Your task to perform on an android device: create a new album in the google photos Image 0: 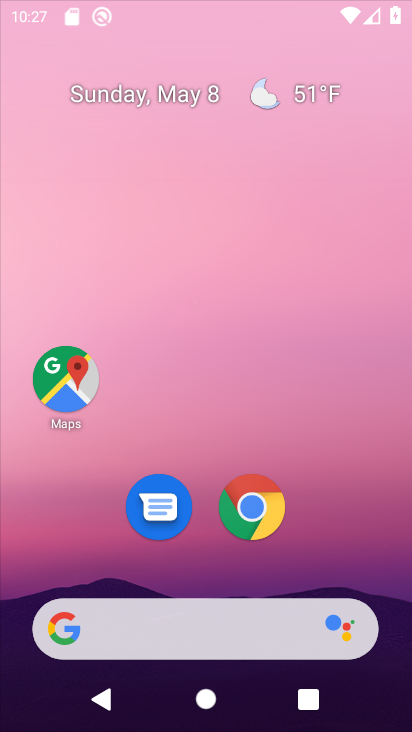
Step 0: press home button
Your task to perform on an android device: create a new album in the google photos Image 1: 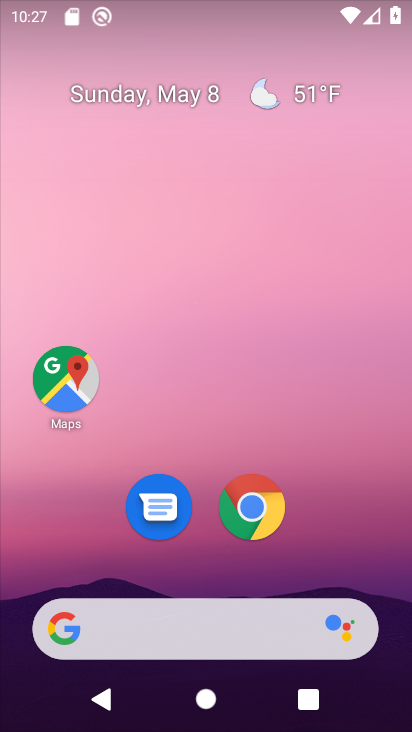
Step 1: drag from (204, 558) to (222, 47)
Your task to perform on an android device: create a new album in the google photos Image 2: 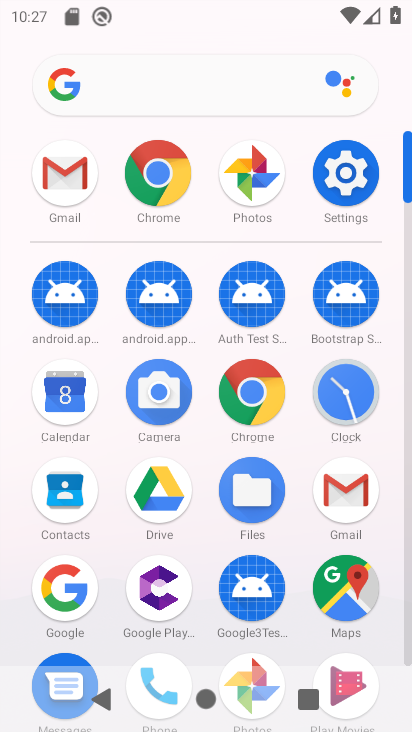
Step 2: drag from (198, 550) to (201, 117)
Your task to perform on an android device: create a new album in the google photos Image 3: 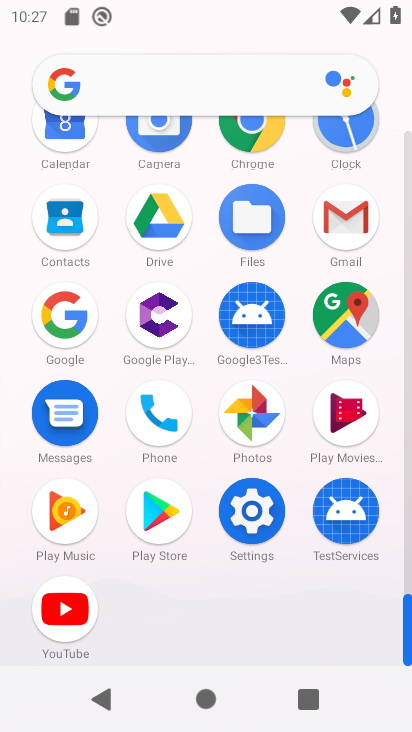
Step 3: click (260, 409)
Your task to perform on an android device: create a new album in the google photos Image 4: 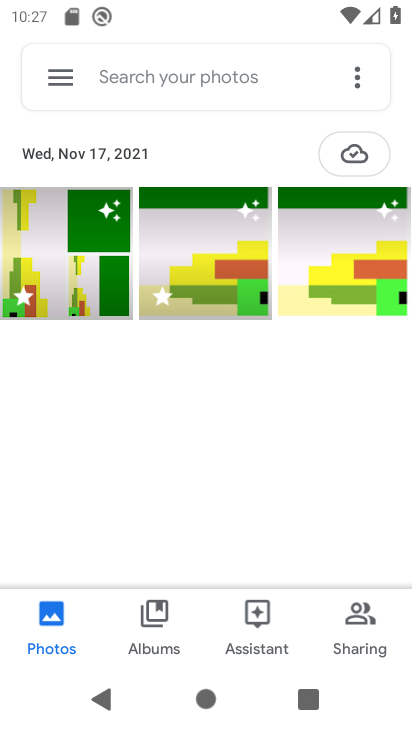
Step 4: click (155, 613)
Your task to perform on an android device: create a new album in the google photos Image 5: 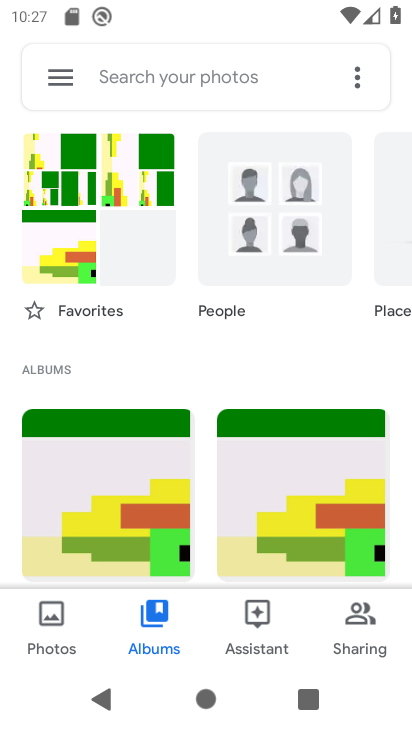
Step 5: click (355, 75)
Your task to perform on an android device: create a new album in the google photos Image 6: 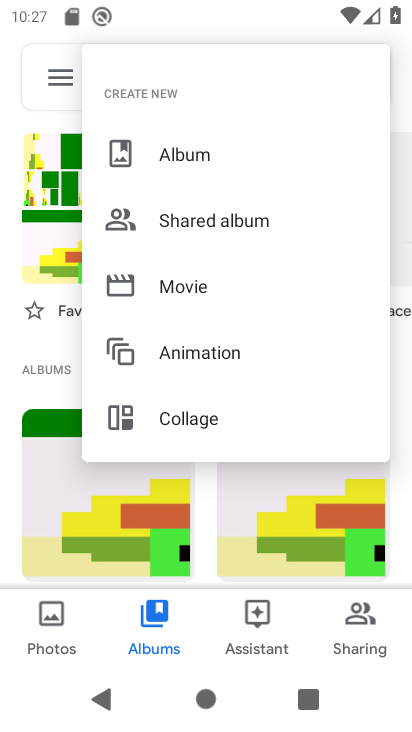
Step 6: click (179, 147)
Your task to perform on an android device: create a new album in the google photos Image 7: 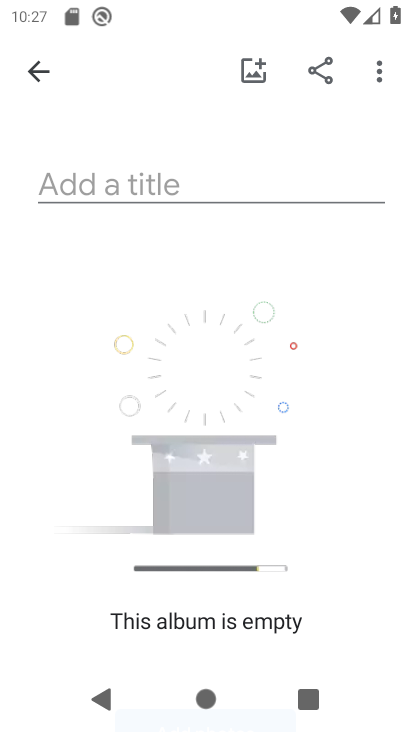
Step 7: drag from (227, 542) to (258, 231)
Your task to perform on an android device: create a new album in the google photos Image 8: 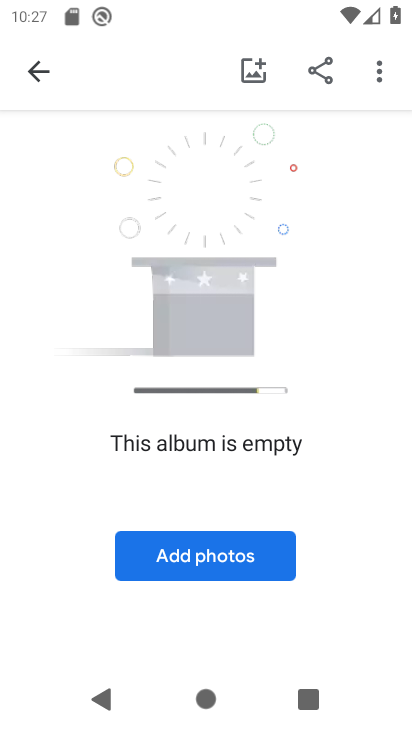
Step 8: click (201, 570)
Your task to perform on an android device: create a new album in the google photos Image 9: 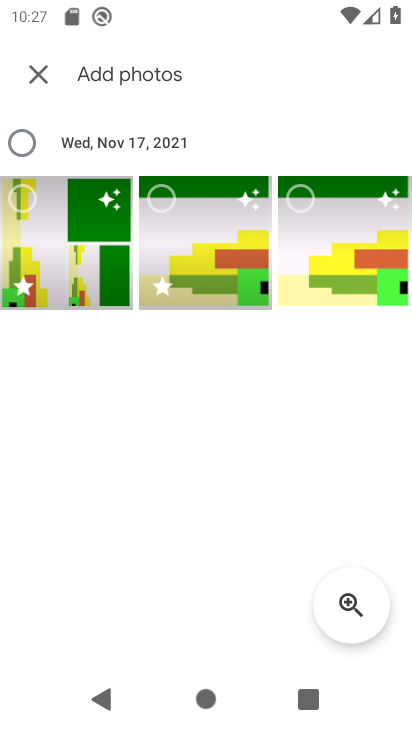
Step 9: click (19, 132)
Your task to perform on an android device: create a new album in the google photos Image 10: 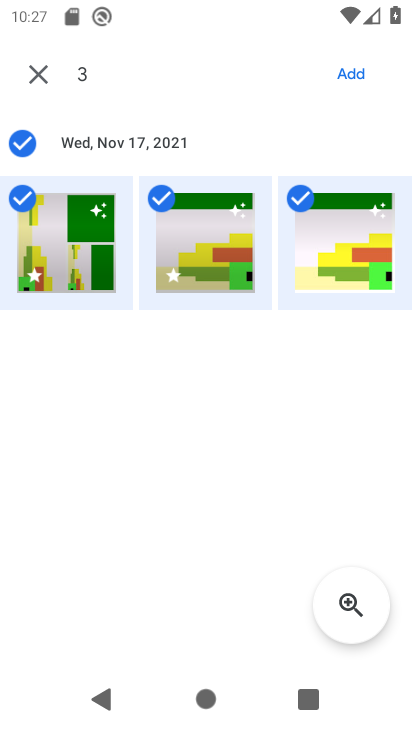
Step 10: click (342, 68)
Your task to perform on an android device: create a new album in the google photos Image 11: 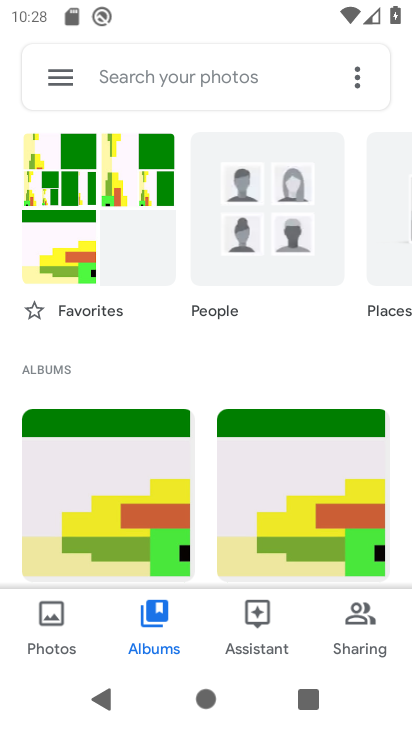
Step 11: click (358, 78)
Your task to perform on an android device: create a new album in the google photos Image 12: 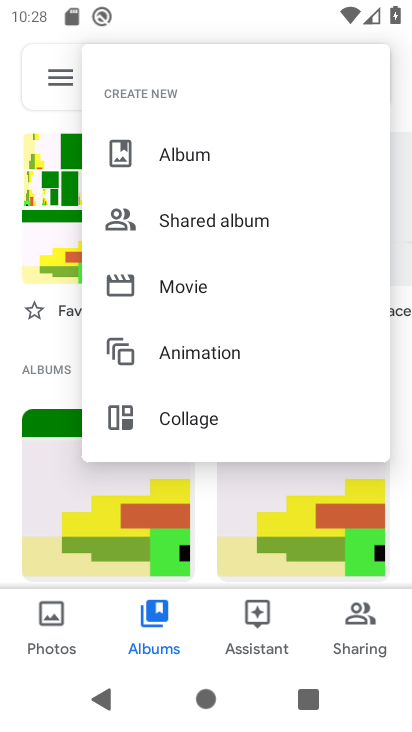
Step 12: click (209, 161)
Your task to perform on an android device: create a new album in the google photos Image 13: 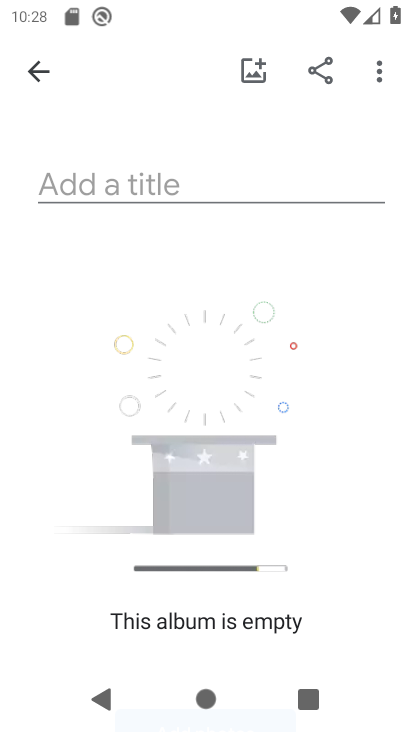
Step 13: drag from (202, 520) to (224, 208)
Your task to perform on an android device: create a new album in the google photos Image 14: 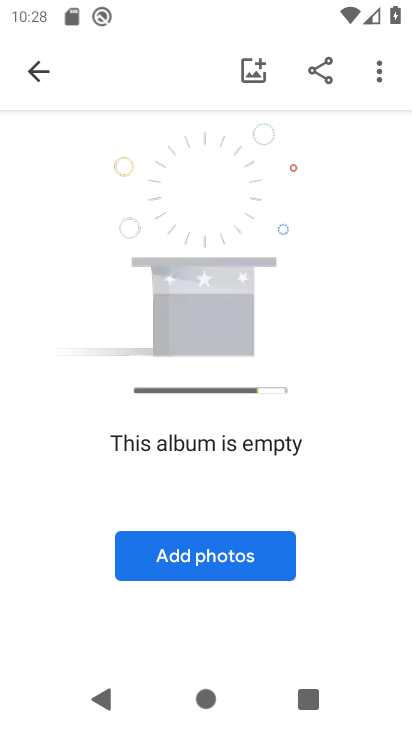
Step 14: click (217, 559)
Your task to perform on an android device: create a new album in the google photos Image 15: 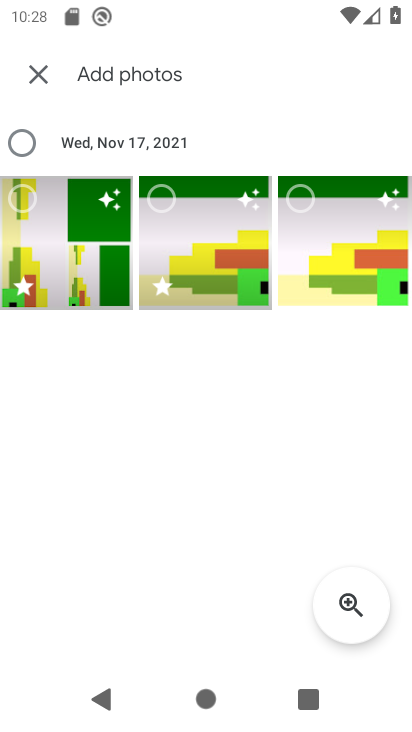
Step 15: click (29, 142)
Your task to perform on an android device: create a new album in the google photos Image 16: 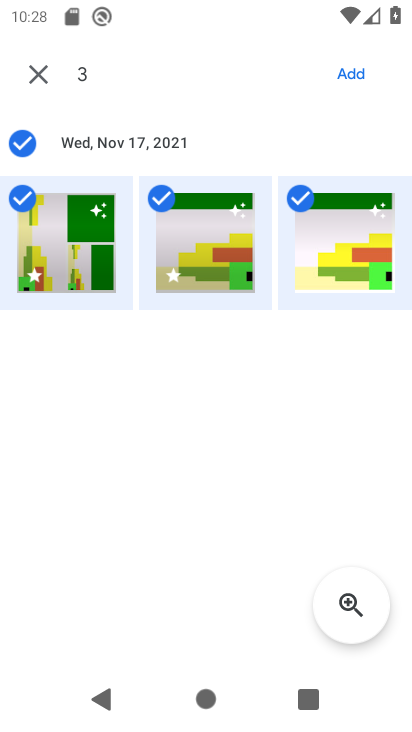
Step 16: click (371, 65)
Your task to perform on an android device: create a new album in the google photos Image 17: 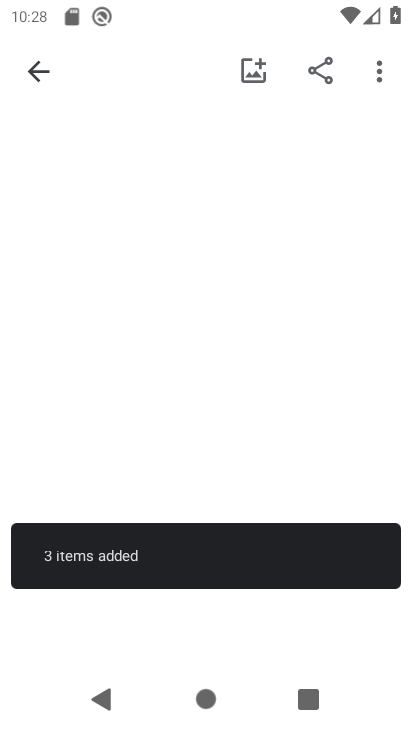
Step 17: drag from (166, 211) to (160, 582)
Your task to perform on an android device: create a new album in the google photos Image 18: 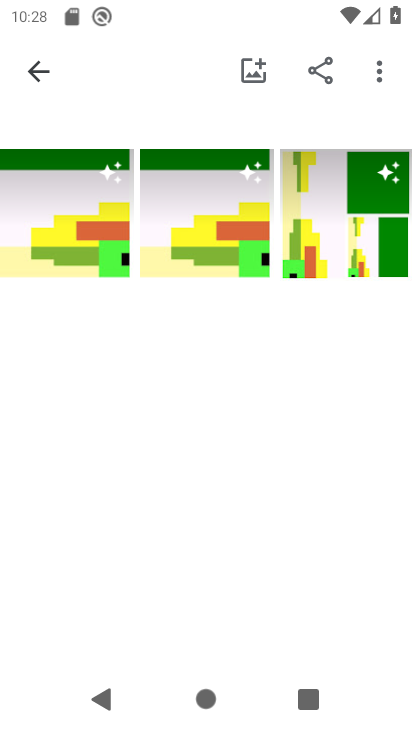
Step 18: drag from (171, 245) to (147, 717)
Your task to perform on an android device: create a new album in the google photos Image 19: 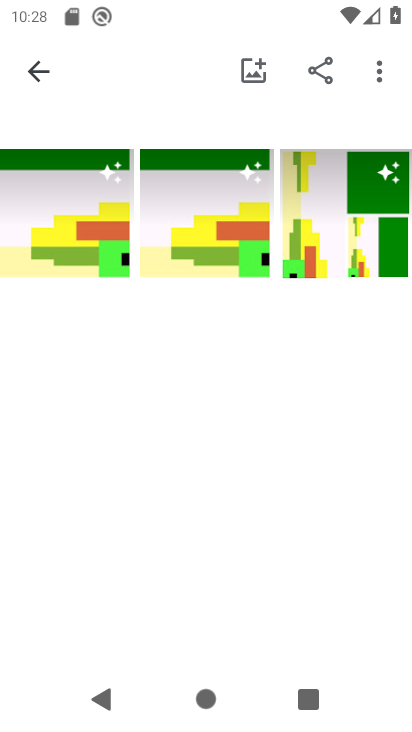
Step 19: drag from (166, 333) to (151, 597)
Your task to perform on an android device: create a new album in the google photos Image 20: 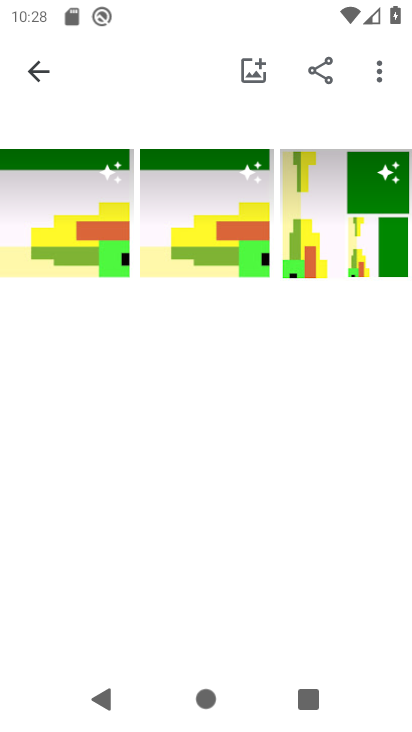
Step 20: drag from (129, 557) to (179, 185)
Your task to perform on an android device: create a new album in the google photos Image 21: 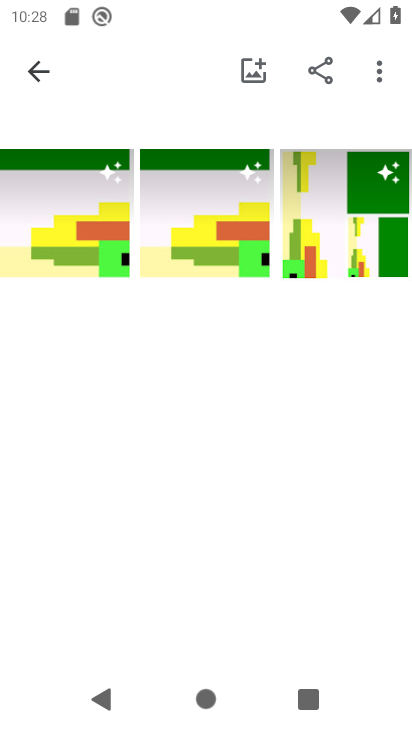
Step 21: drag from (237, 301) to (229, 544)
Your task to perform on an android device: create a new album in the google photos Image 22: 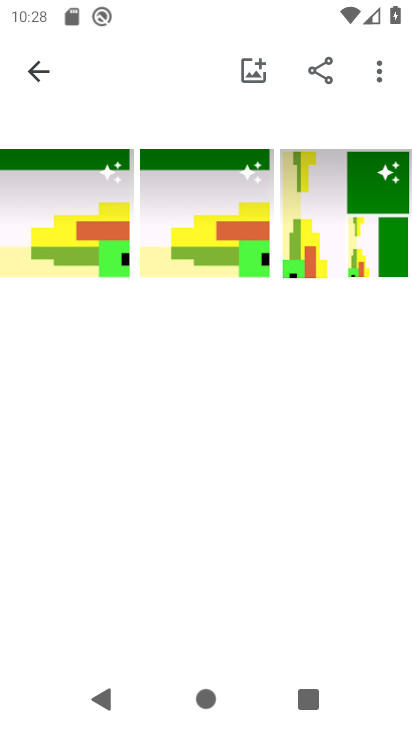
Step 22: click (255, 73)
Your task to perform on an android device: create a new album in the google photos Image 23: 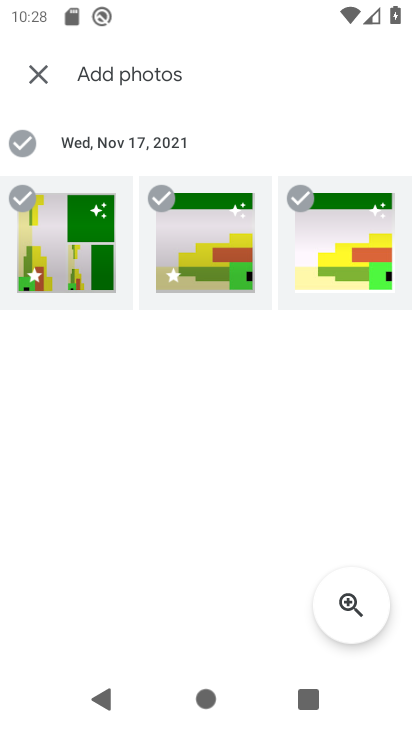
Step 23: click (30, 69)
Your task to perform on an android device: create a new album in the google photos Image 24: 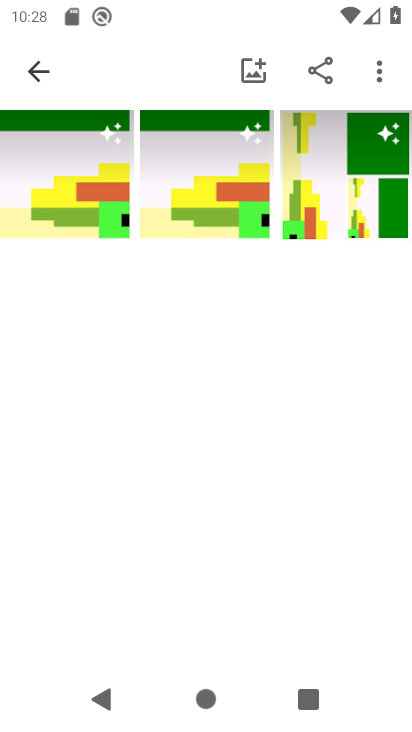
Step 24: task complete